Your task to perform on an android device: toggle show notifications on the lock screen Image 0: 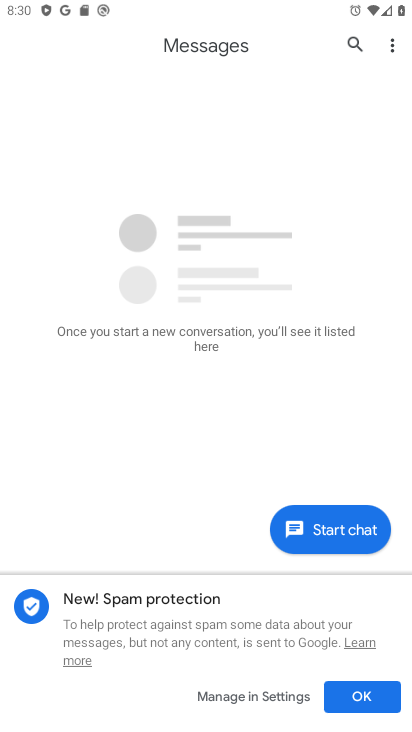
Step 0: press home button
Your task to perform on an android device: toggle show notifications on the lock screen Image 1: 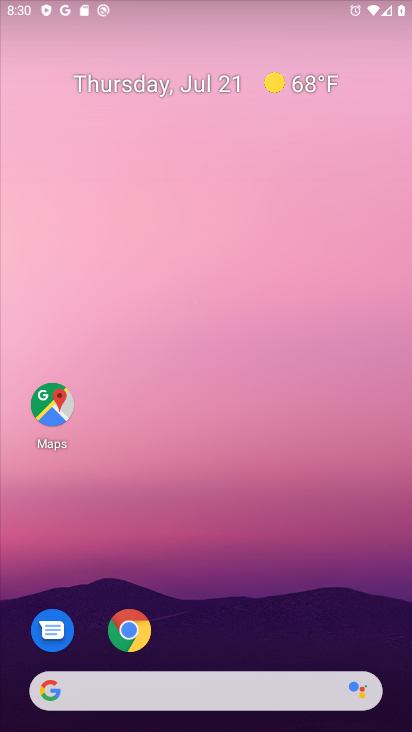
Step 1: drag from (335, 468) to (253, 15)
Your task to perform on an android device: toggle show notifications on the lock screen Image 2: 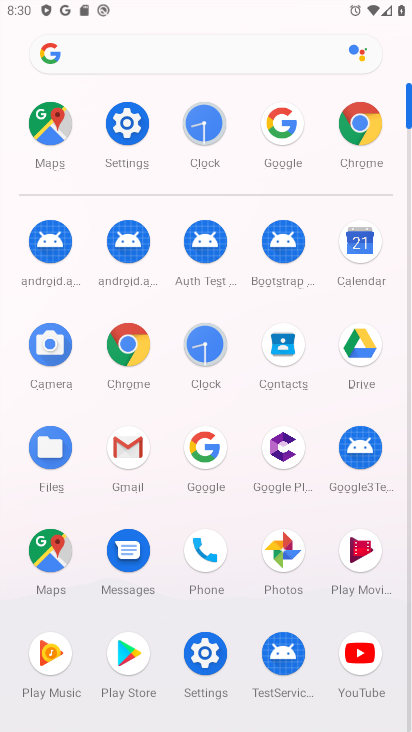
Step 2: click (141, 135)
Your task to perform on an android device: toggle show notifications on the lock screen Image 3: 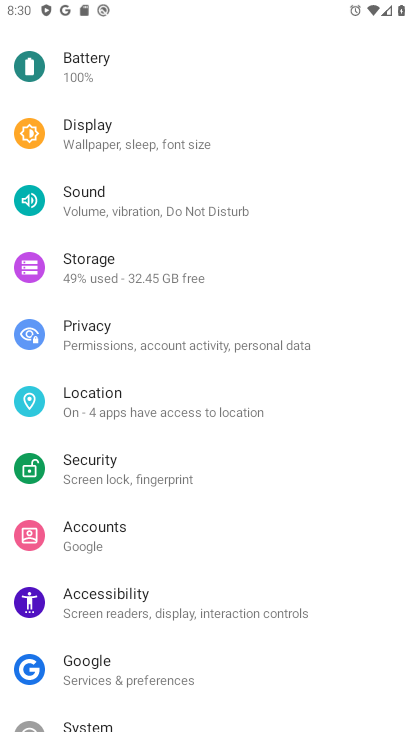
Step 3: drag from (125, 123) to (221, 580)
Your task to perform on an android device: toggle show notifications on the lock screen Image 4: 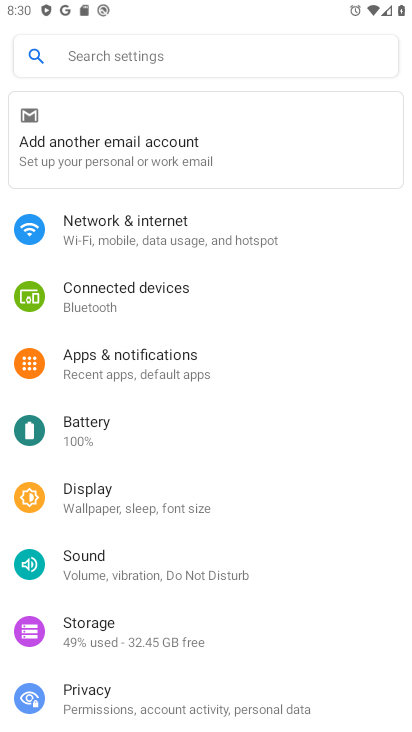
Step 4: click (129, 364)
Your task to perform on an android device: toggle show notifications on the lock screen Image 5: 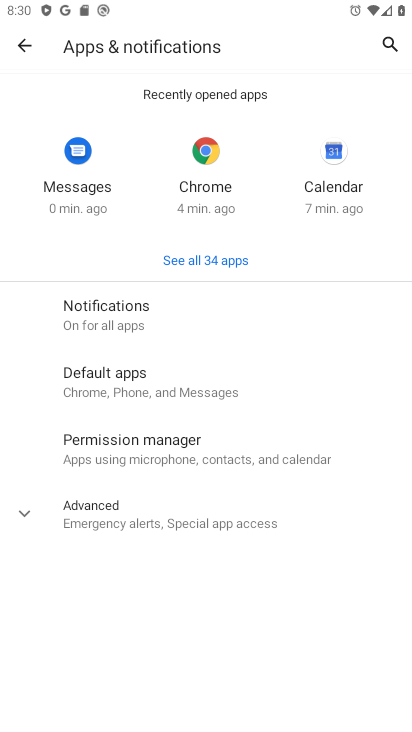
Step 5: click (98, 313)
Your task to perform on an android device: toggle show notifications on the lock screen Image 6: 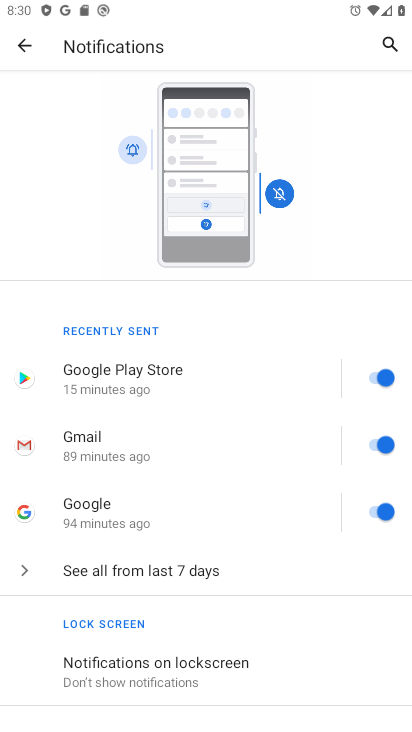
Step 6: drag from (188, 614) to (187, 261)
Your task to perform on an android device: toggle show notifications on the lock screen Image 7: 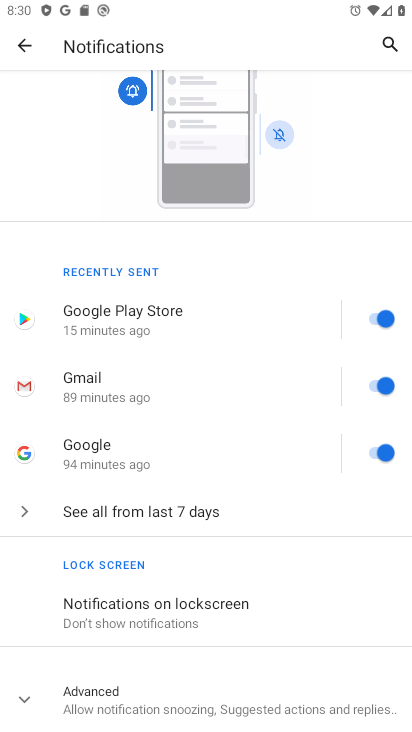
Step 7: click (178, 621)
Your task to perform on an android device: toggle show notifications on the lock screen Image 8: 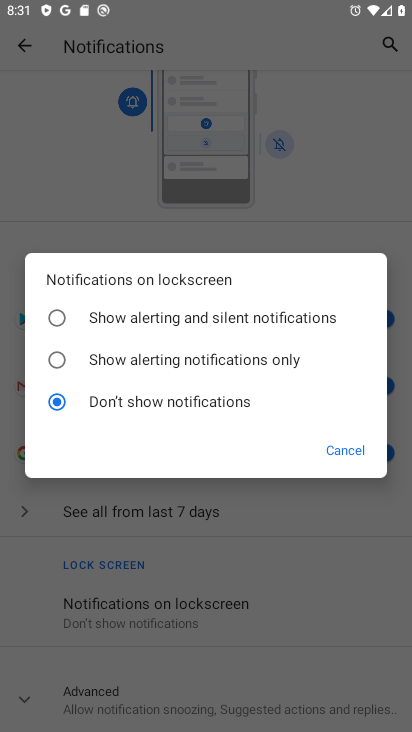
Step 8: click (136, 367)
Your task to perform on an android device: toggle show notifications on the lock screen Image 9: 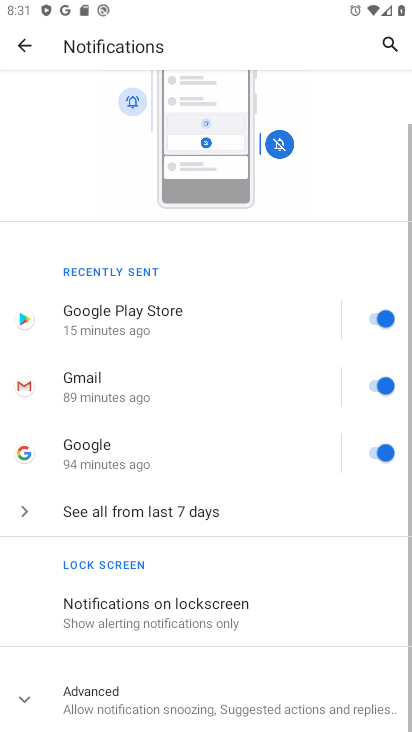
Step 9: task complete